Your task to perform on an android device: What's the weather going to be this weekend? Image 0: 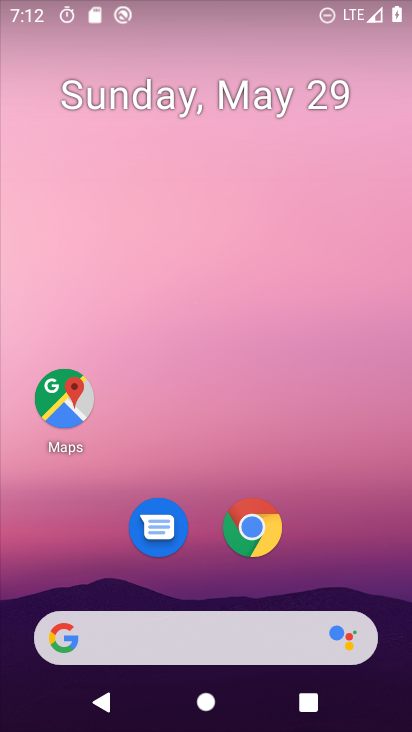
Step 0: drag from (362, 594) to (309, 1)
Your task to perform on an android device: What's the weather going to be this weekend? Image 1: 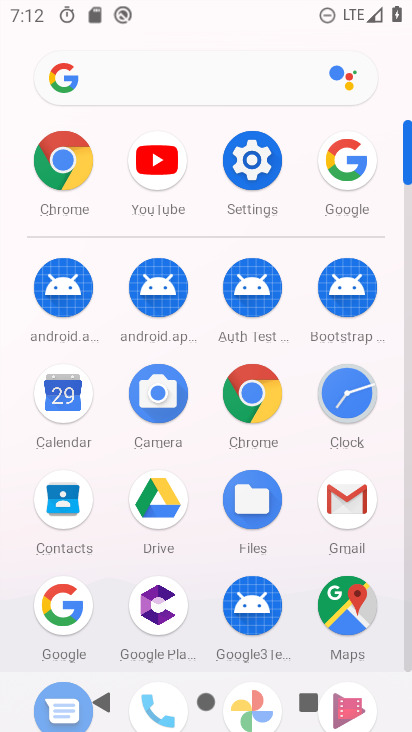
Step 1: click (83, 612)
Your task to perform on an android device: What's the weather going to be this weekend? Image 2: 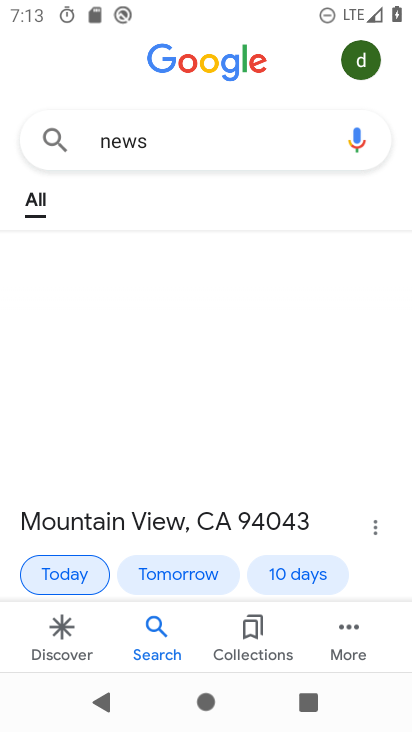
Step 2: press back button
Your task to perform on an android device: What's the weather going to be this weekend? Image 3: 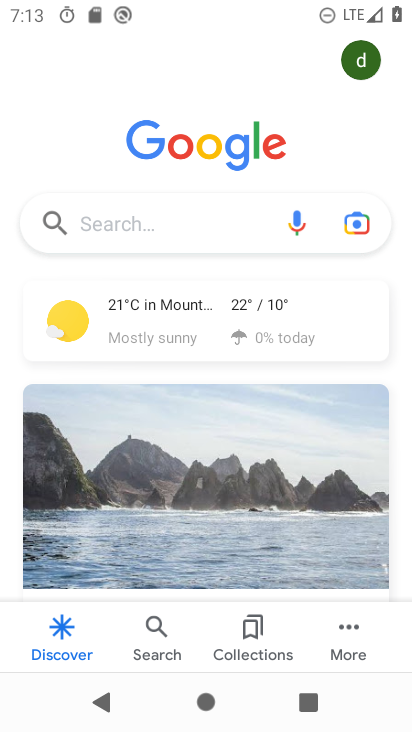
Step 3: click (132, 212)
Your task to perform on an android device: What's the weather going to be this weekend? Image 4: 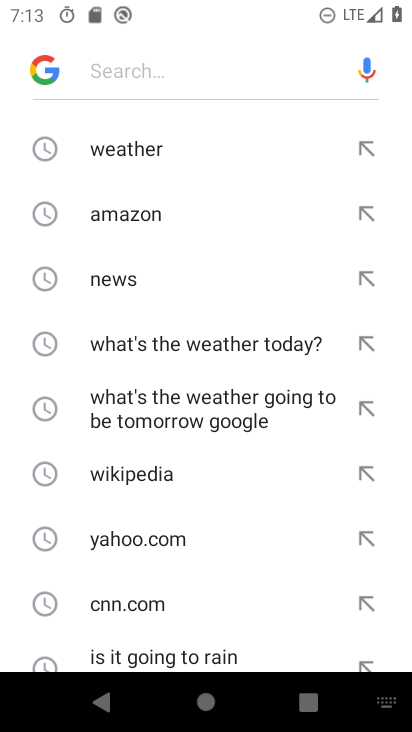
Step 4: drag from (153, 568) to (209, 159)
Your task to perform on an android device: What's the weather going to be this weekend? Image 5: 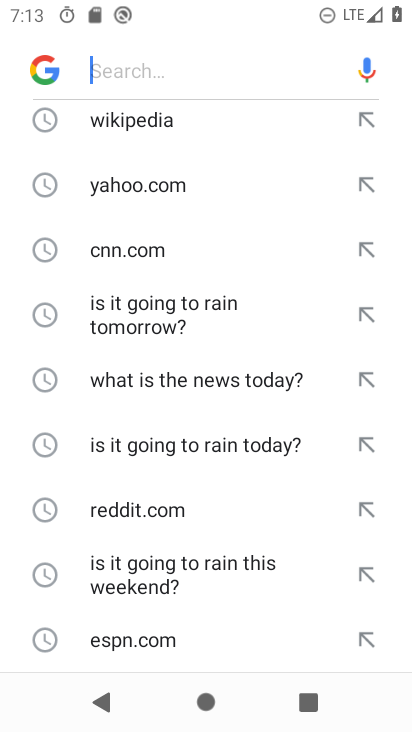
Step 5: drag from (204, 589) to (234, 221)
Your task to perform on an android device: What's the weather going to be this weekend? Image 6: 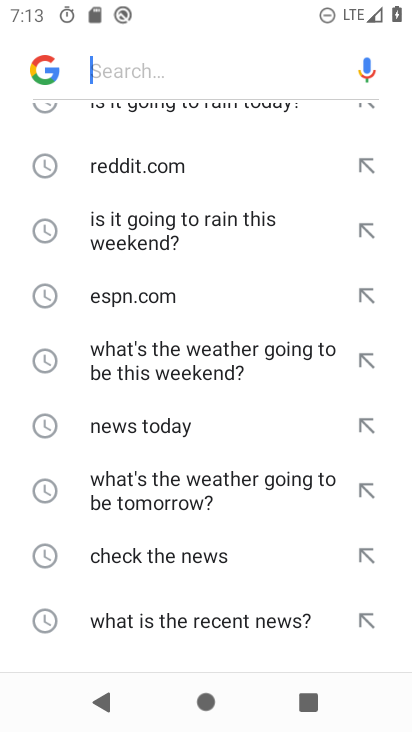
Step 6: click (224, 366)
Your task to perform on an android device: What's the weather going to be this weekend? Image 7: 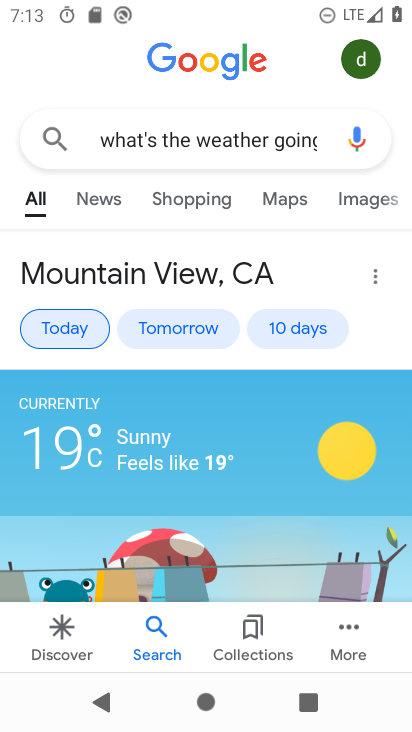
Step 7: task complete